Your task to perform on an android device: set the timer Image 0: 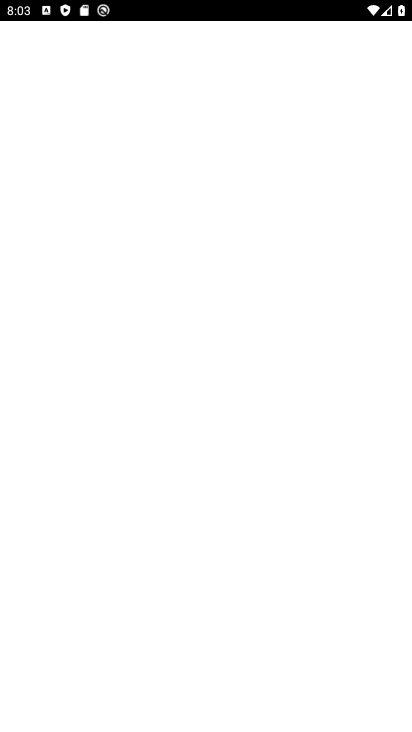
Step 0: drag from (365, 595) to (332, 57)
Your task to perform on an android device: set the timer Image 1: 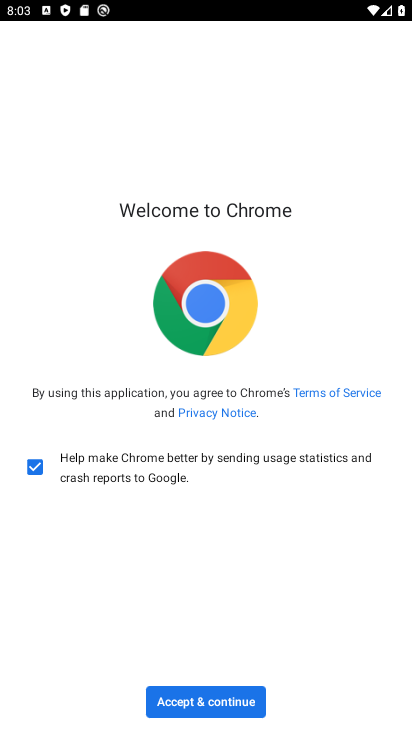
Step 1: press home button
Your task to perform on an android device: set the timer Image 2: 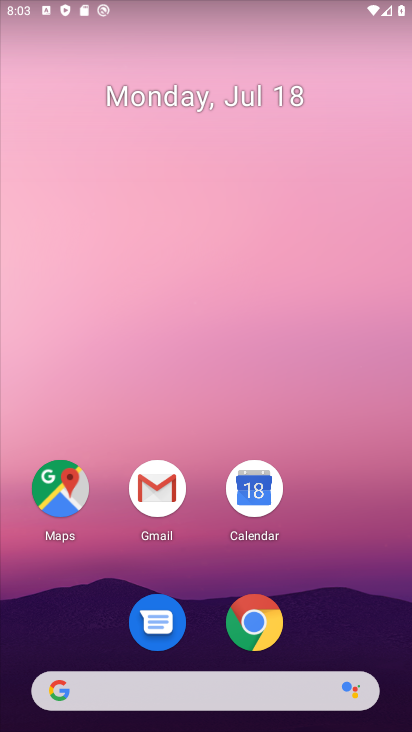
Step 2: drag from (376, 553) to (290, 74)
Your task to perform on an android device: set the timer Image 3: 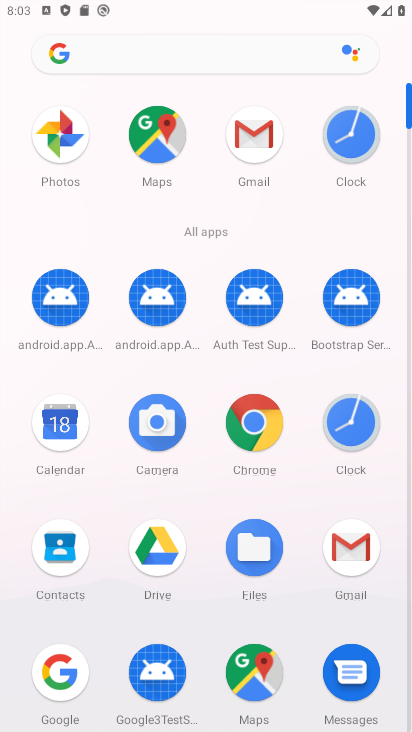
Step 3: drag from (357, 417) to (59, 395)
Your task to perform on an android device: set the timer Image 4: 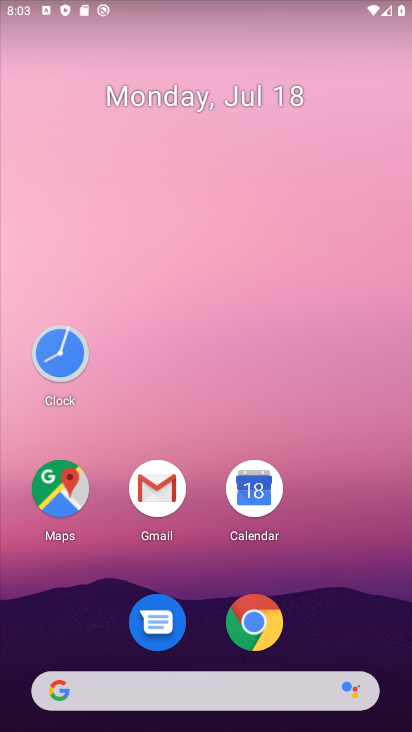
Step 4: click (63, 348)
Your task to perform on an android device: set the timer Image 5: 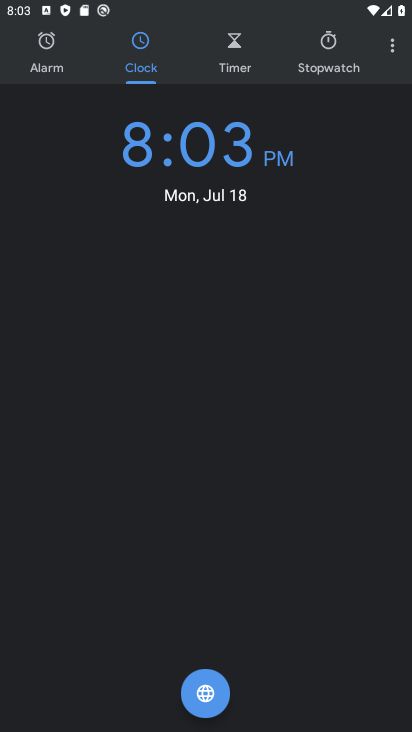
Step 5: click (227, 56)
Your task to perform on an android device: set the timer Image 6: 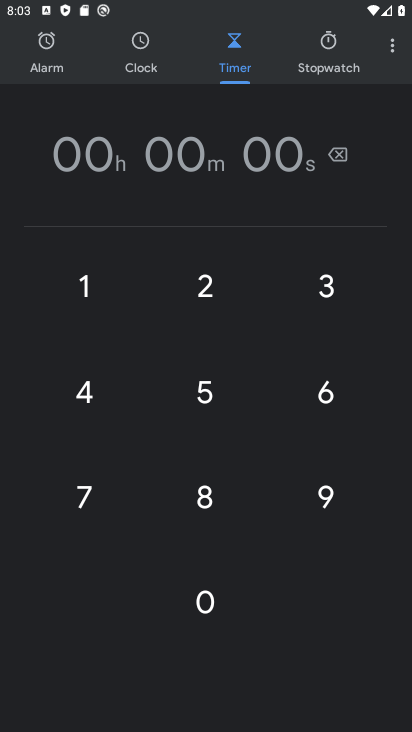
Step 6: click (199, 387)
Your task to perform on an android device: set the timer Image 7: 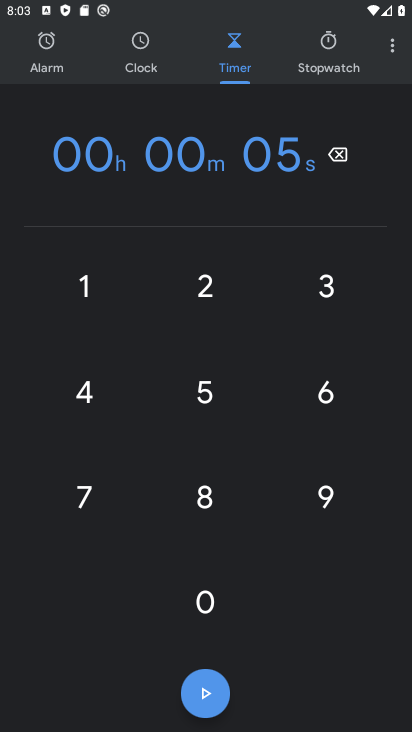
Step 7: click (199, 387)
Your task to perform on an android device: set the timer Image 8: 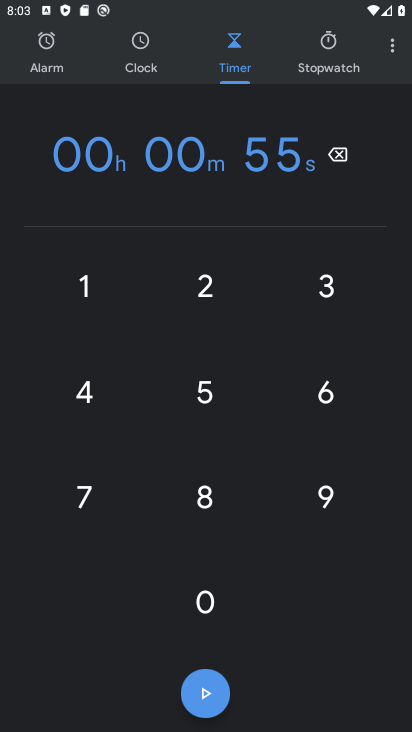
Step 8: click (207, 690)
Your task to perform on an android device: set the timer Image 9: 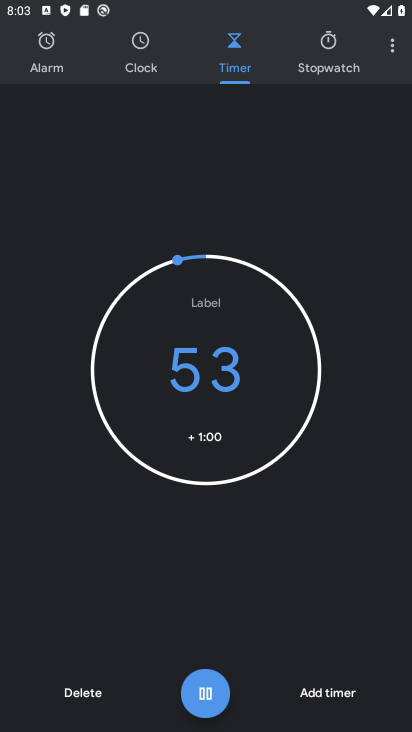
Step 9: task complete